Your task to perform on an android device: change alarm snooze length Image 0: 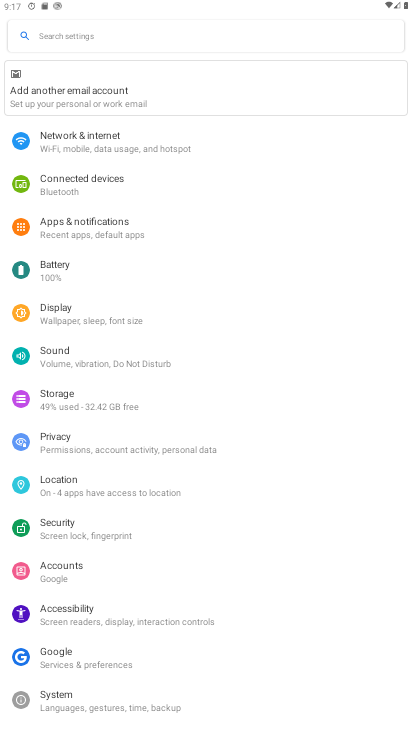
Step 0: press home button
Your task to perform on an android device: change alarm snooze length Image 1: 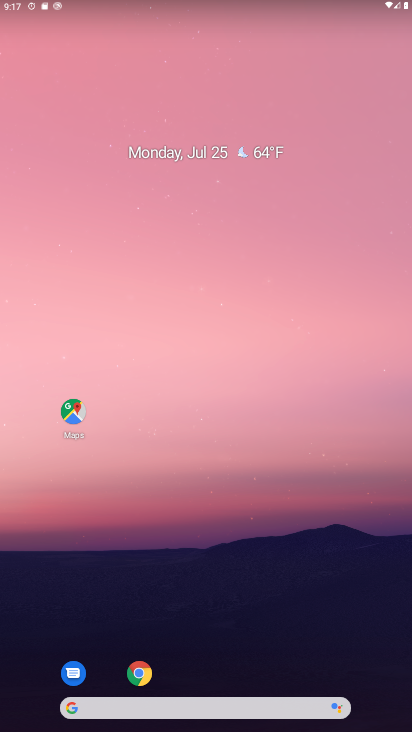
Step 1: drag from (216, 683) to (282, 62)
Your task to perform on an android device: change alarm snooze length Image 2: 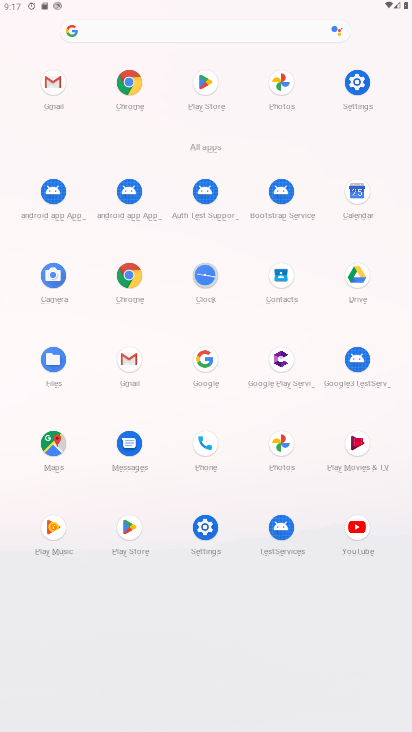
Step 2: click (201, 272)
Your task to perform on an android device: change alarm snooze length Image 3: 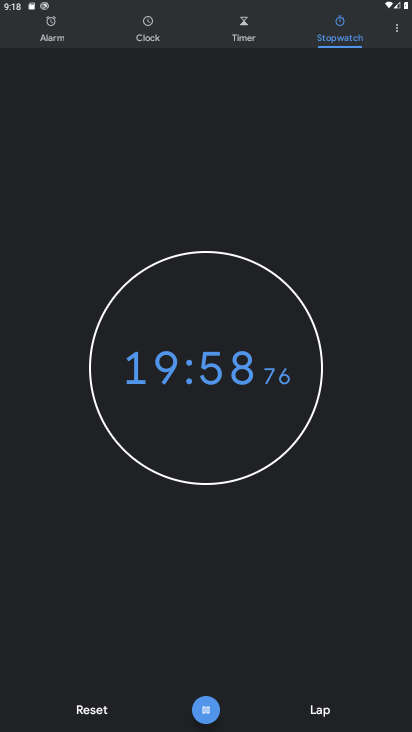
Step 3: click (398, 28)
Your task to perform on an android device: change alarm snooze length Image 4: 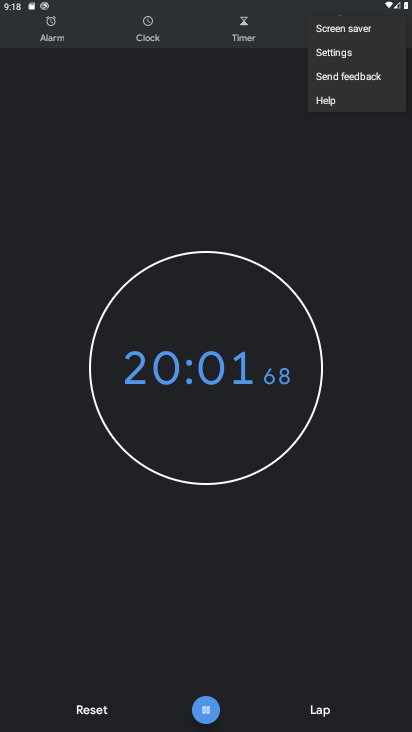
Step 4: click (363, 58)
Your task to perform on an android device: change alarm snooze length Image 5: 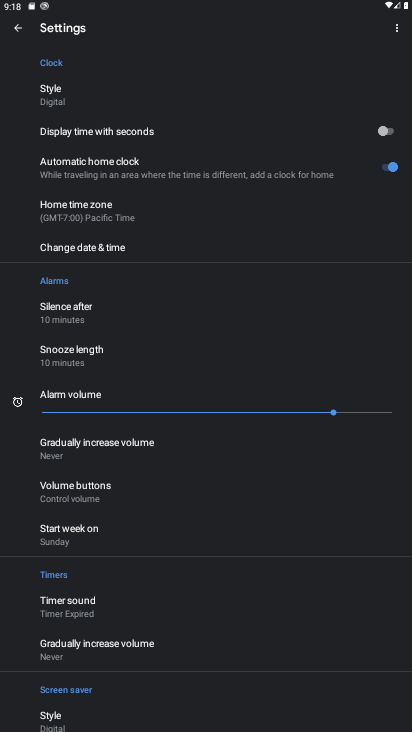
Step 5: click (130, 358)
Your task to perform on an android device: change alarm snooze length Image 6: 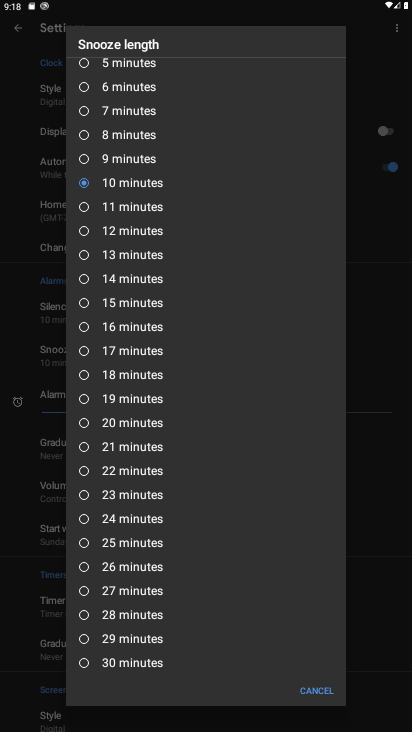
Step 6: click (84, 280)
Your task to perform on an android device: change alarm snooze length Image 7: 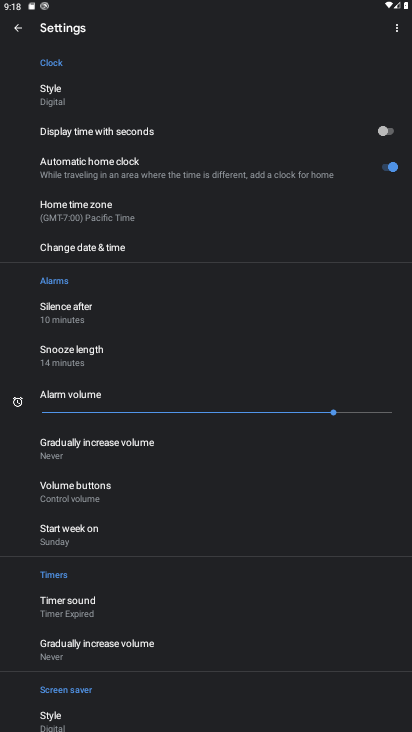
Step 7: task complete